Your task to perform on an android device: open app "Duolingo: language lessons" Image 0: 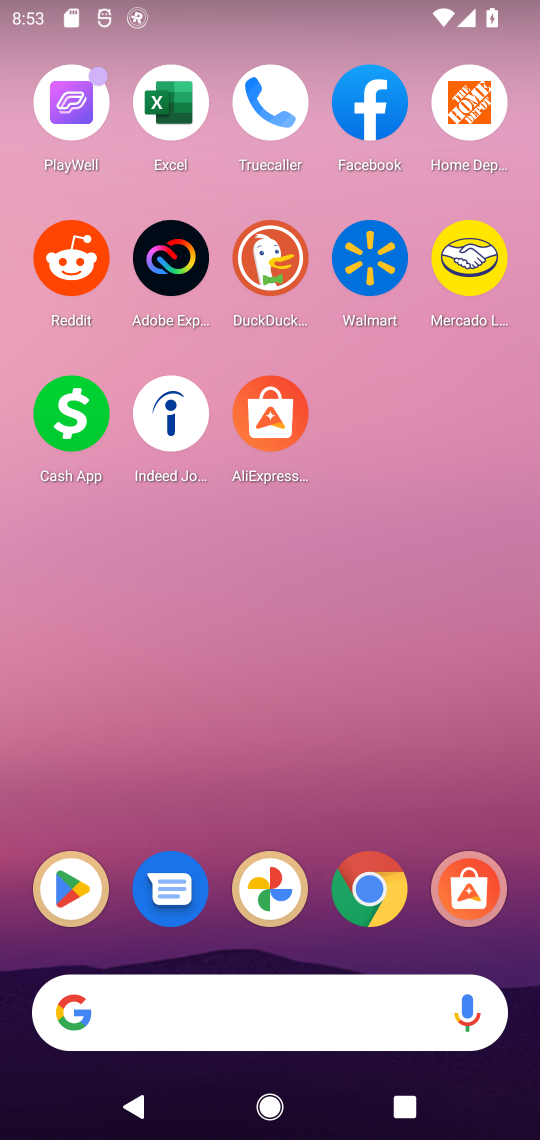
Step 0: press home button
Your task to perform on an android device: open app "Duolingo: language lessons" Image 1: 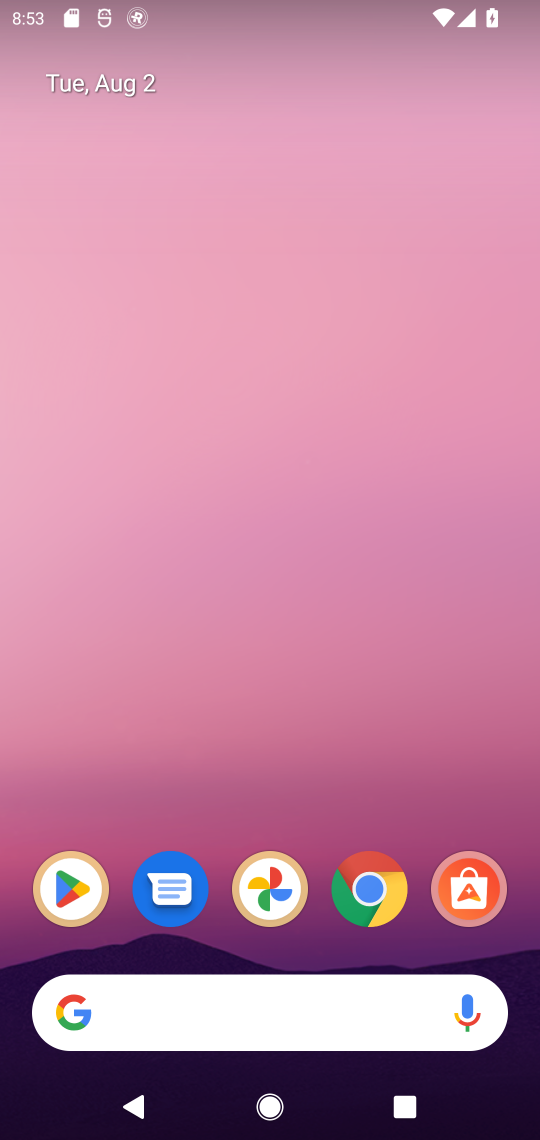
Step 1: click (80, 890)
Your task to perform on an android device: open app "Duolingo: language lessons" Image 2: 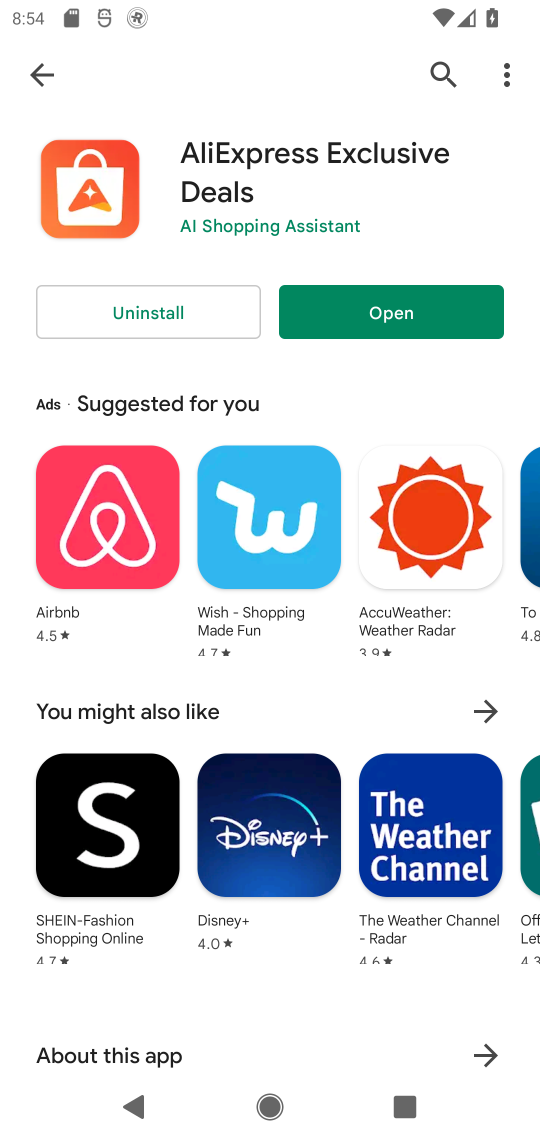
Step 2: press home button
Your task to perform on an android device: open app "Duolingo: language lessons" Image 3: 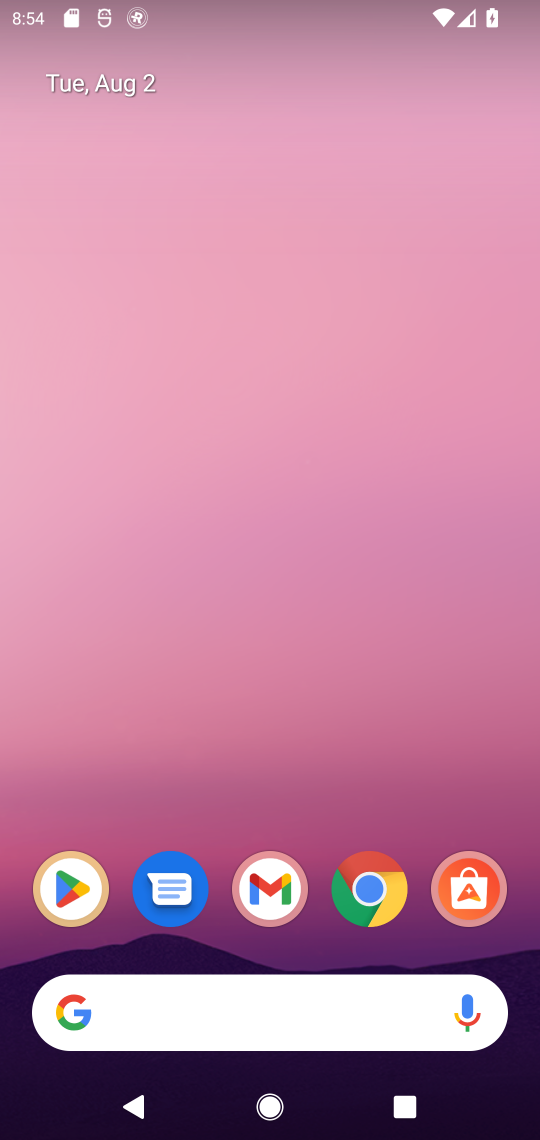
Step 3: click (68, 898)
Your task to perform on an android device: open app "Duolingo: language lessons" Image 4: 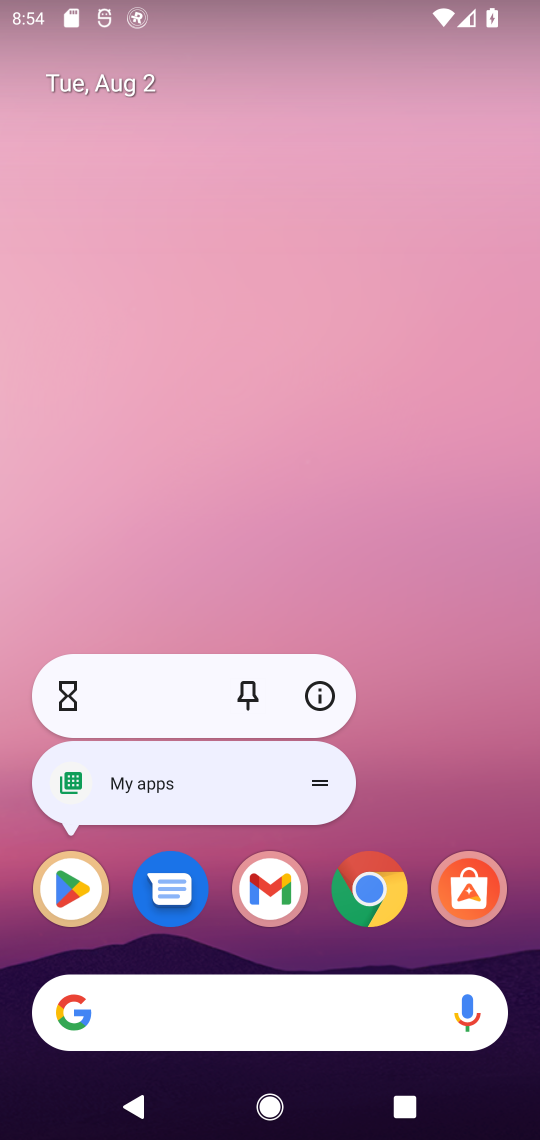
Step 4: click (68, 899)
Your task to perform on an android device: open app "Duolingo: language lessons" Image 5: 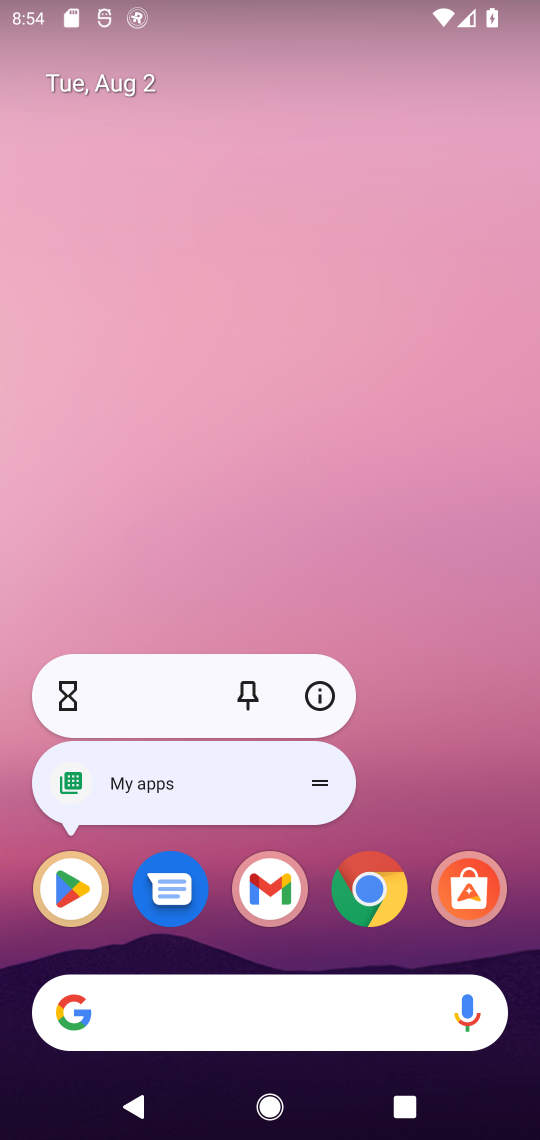
Step 5: click (65, 884)
Your task to perform on an android device: open app "Duolingo: language lessons" Image 6: 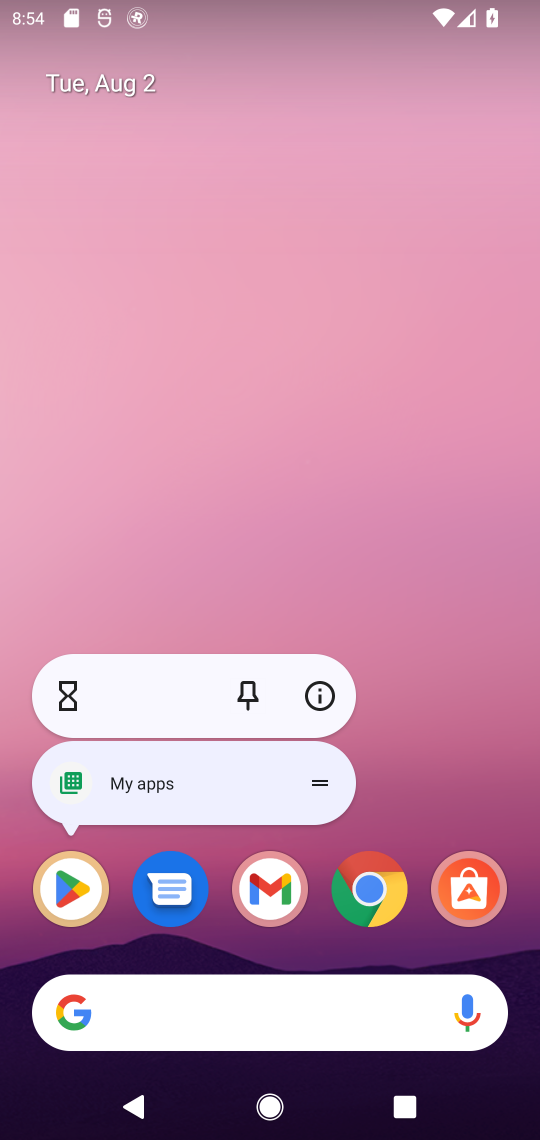
Step 6: click (65, 884)
Your task to perform on an android device: open app "Duolingo: language lessons" Image 7: 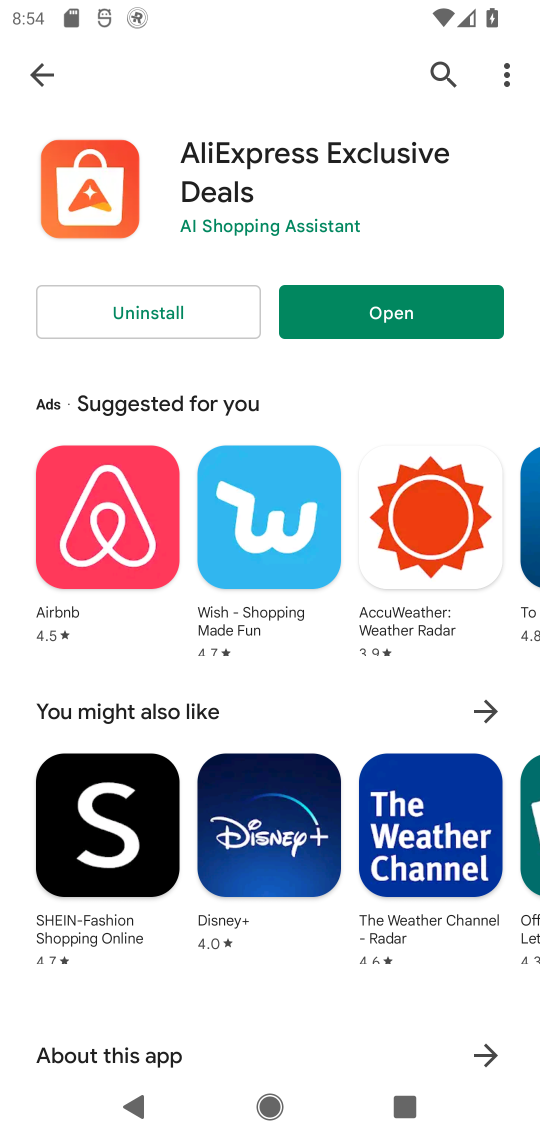
Step 7: click (443, 70)
Your task to perform on an android device: open app "Duolingo: language lessons" Image 8: 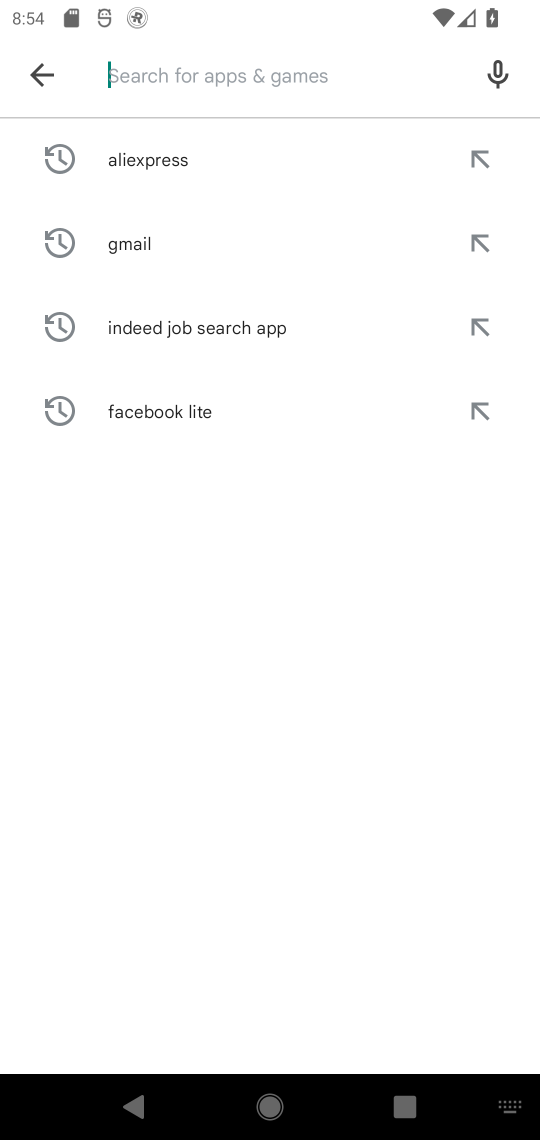
Step 8: type "Duolingo: language lessons"
Your task to perform on an android device: open app "Duolingo: language lessons" Image 9: 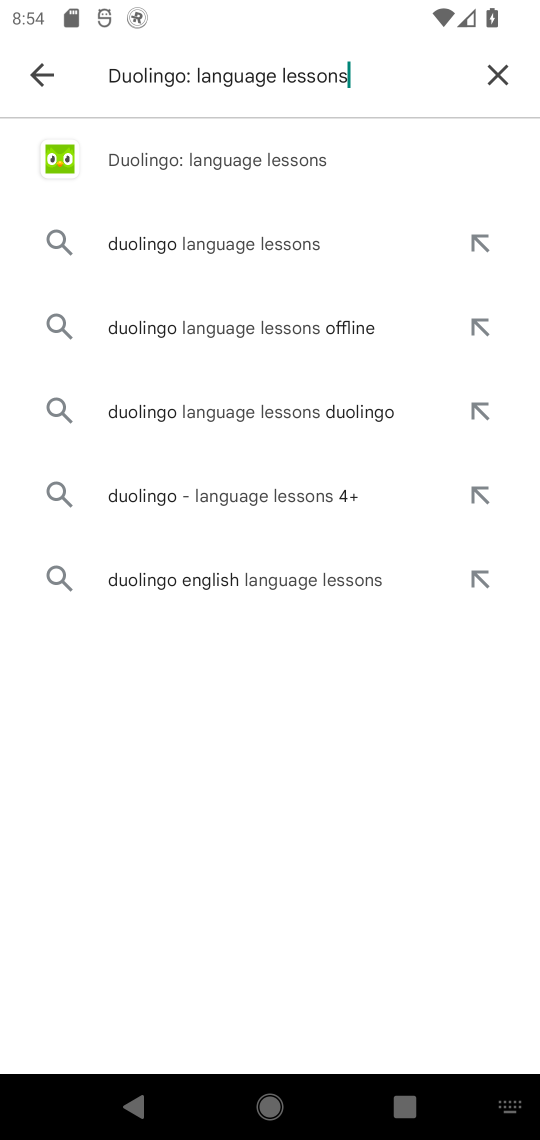
Step 9: click (244, 154)
Your task to perform on an android device: open app "Duolingo: language lessons" Image 10: 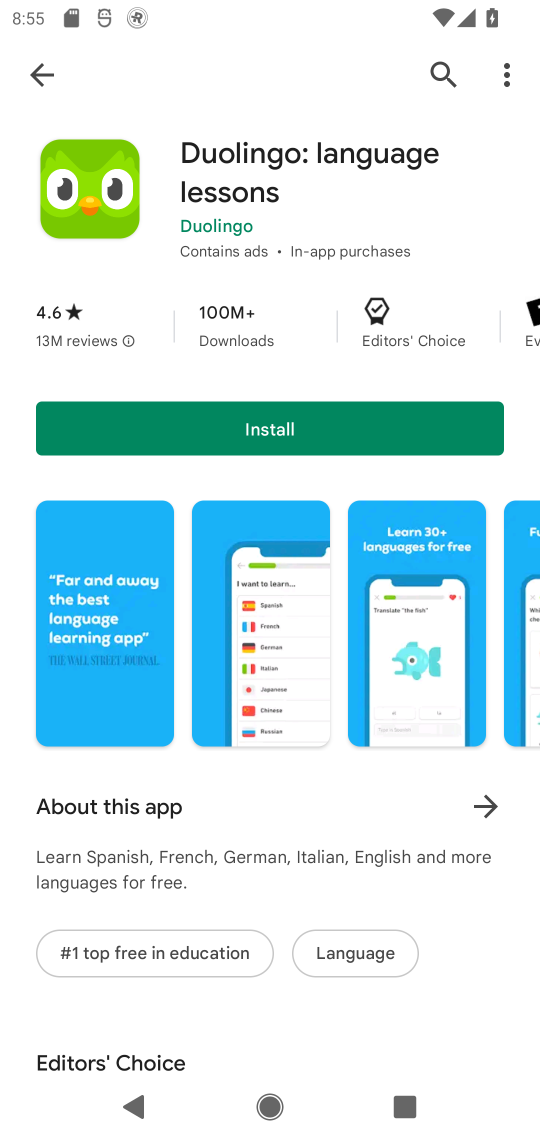
Step 10: task complete